Your task to perform on an android device: Go to Maps Image 0: 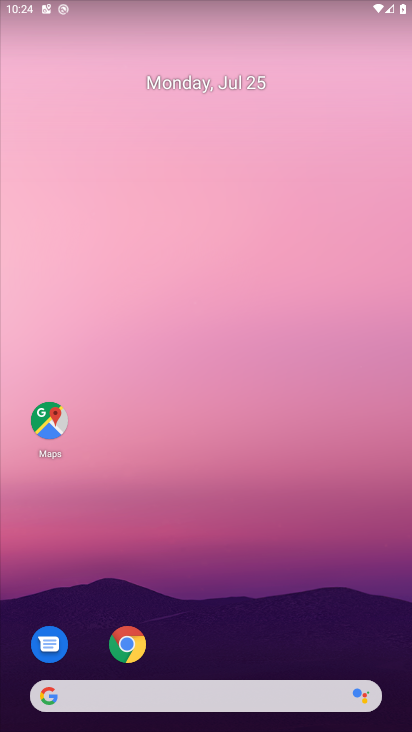
Step 0: press home button
Your task to perform on an android device: Go to Maps Image 1: 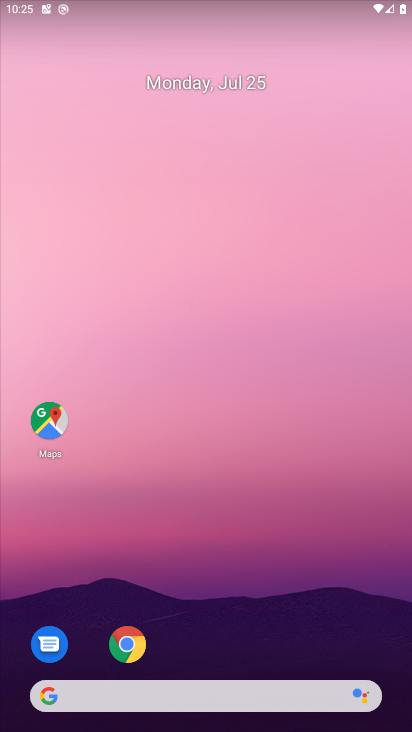
Step 1: click (38, 425)
Your task to perform on an android device: Go to Maps Image 2: 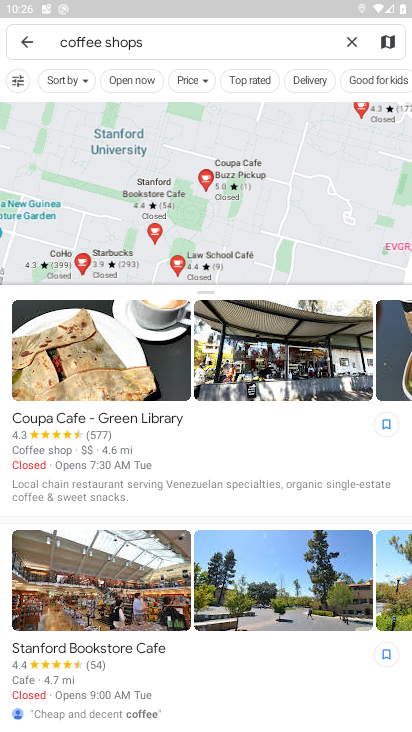
Step 2: task complete